Your task to perform on an android device: delete browsing data in the chrome app Image 0: 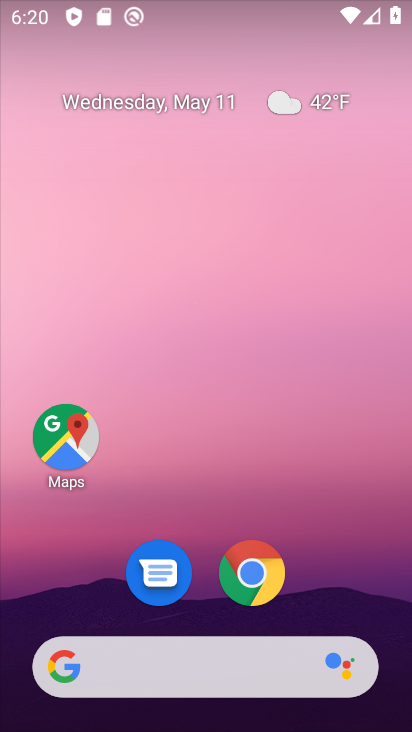
Step 0: click (250, 586)
Your task to perform on an android device: delete browsing data in the chrome app Image 1: 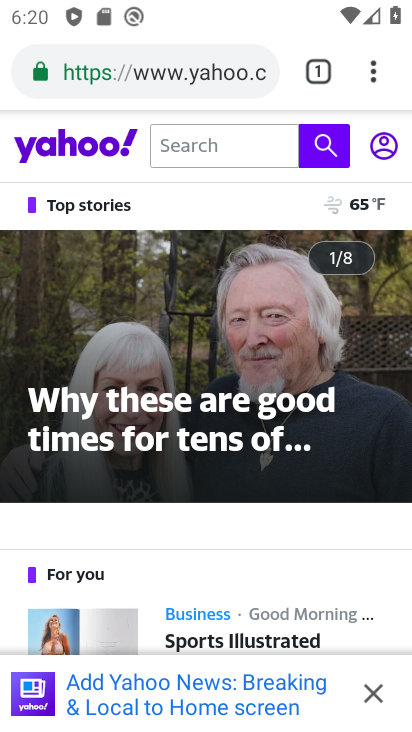
Step 1: click (362, 72)
Your task to perform on an android device: delete browsing data in the chrome app Image 2: 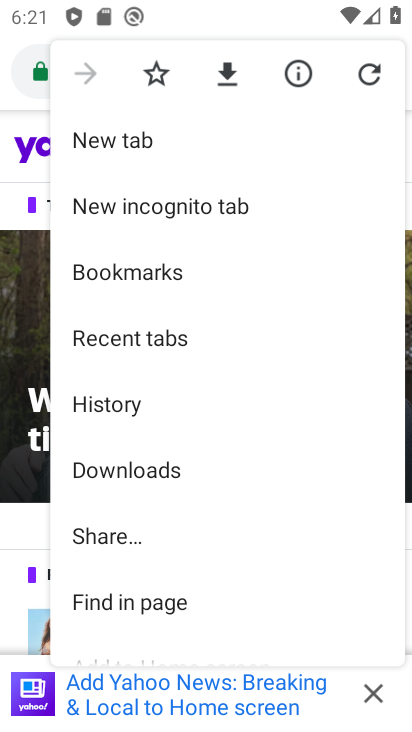
Step 2: click (110, 401)
Your task to perform on an android device: delete browsing data in the chrome app Image 3: 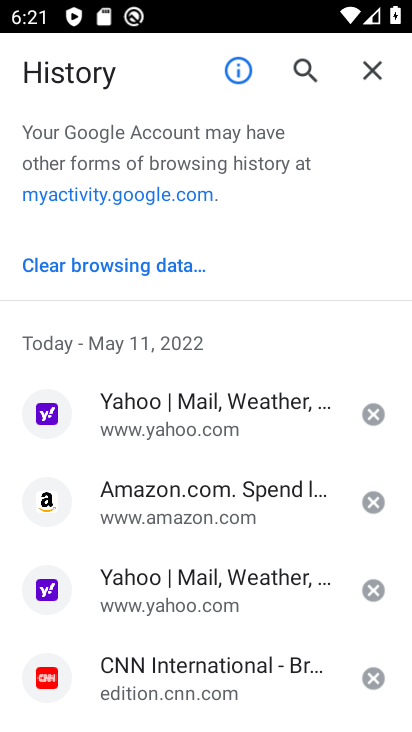
Step 3: click (112, 268)
Your task to perform on an android device: delete browsing data in the chrome app Image 4: 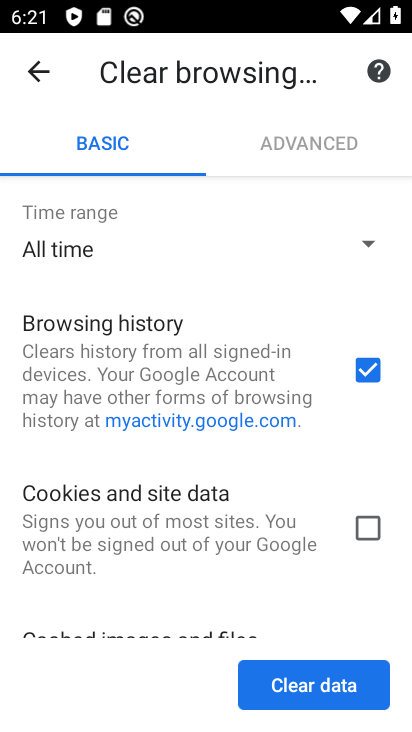
Step 4: click (326, 144)
Your task to perform on an android device: delete browsing data in the chrome app Image 5: 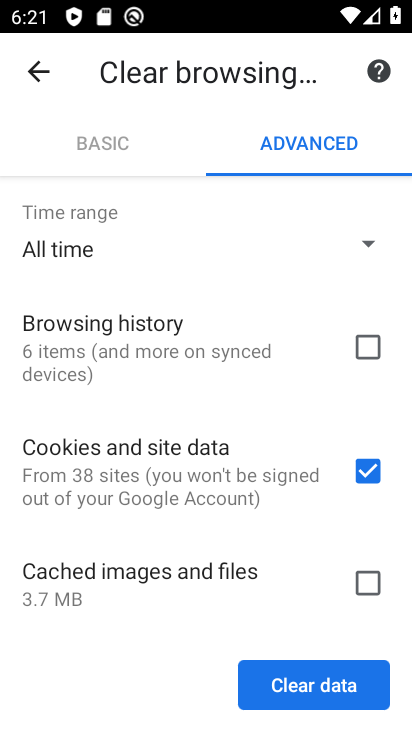
Step 5: click (372, 340)
Your task to perform on an android device: delete browsing data in the chrome app Image 6: 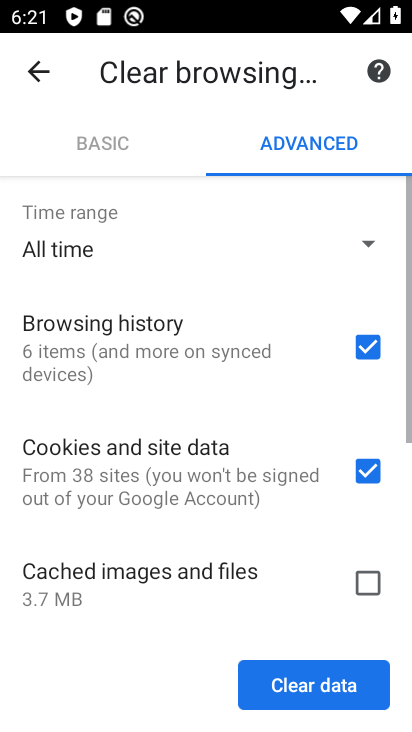
Step 6: click (368, 591)
Your task to perform on an android device: delete browsing data in the chrome app Image 7: 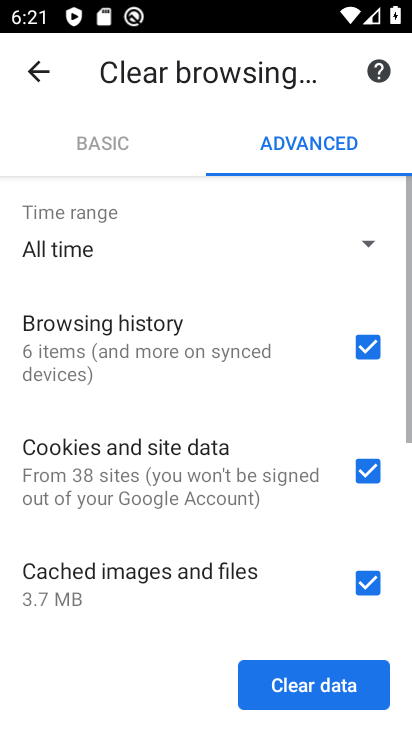
Step 7: drag from (275, 564) to (284, 291)
Your task to perform on an android device: delete browsing data in the chrome app Image 8: 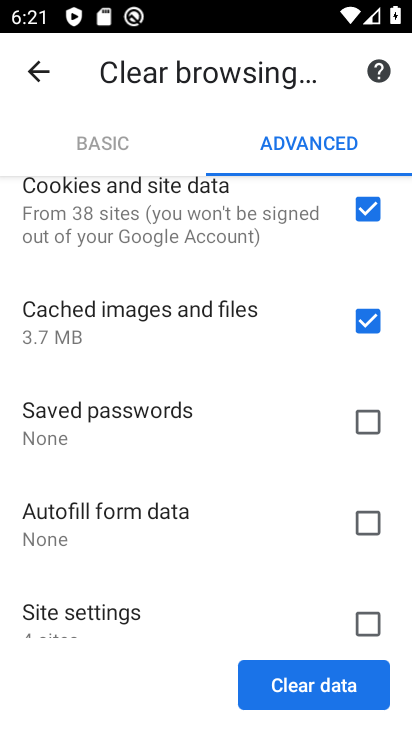
Step 8: click (373, 424)
Your task to perform on an android device: delete browsing data in the chrome app Image 9: 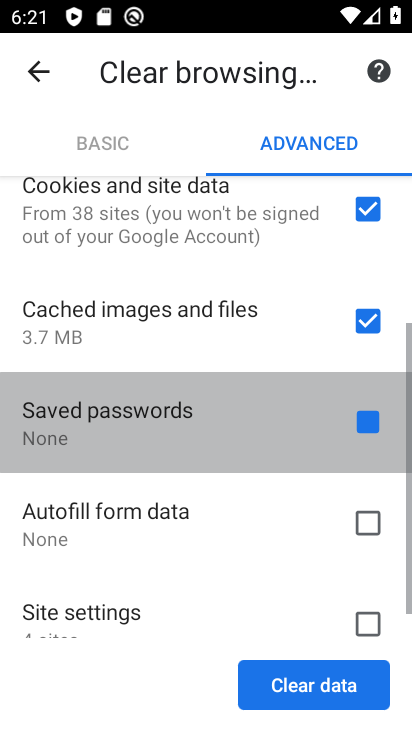
Step 9: click (369, 525)
Your task to perform on an android device: delete browsing data in the chrome app Image 10: 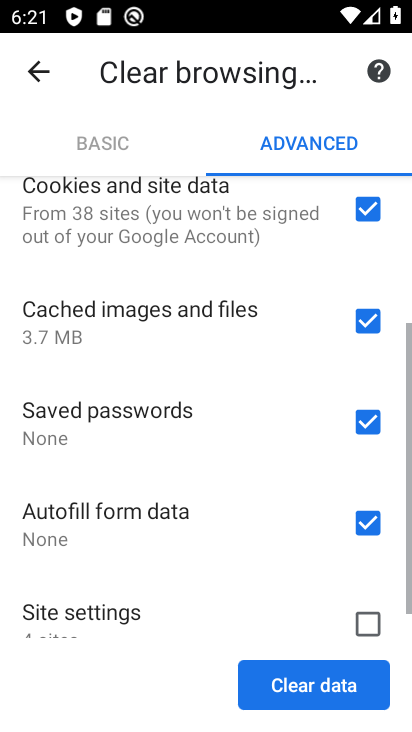
Step 10: click (362, 636)
Your task to perform on an android device: delete browsing data in the chrome app Image 11: 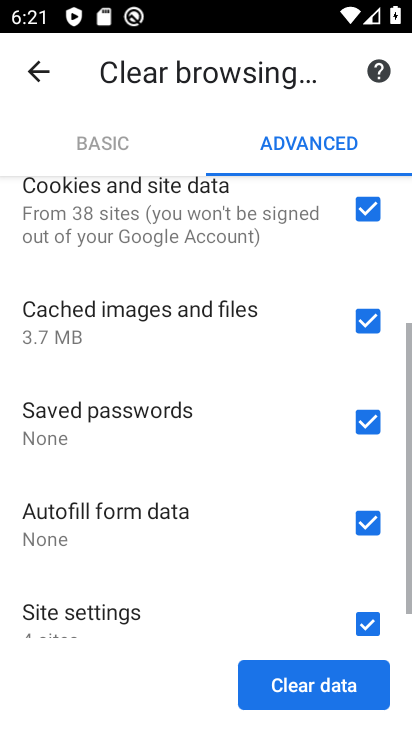
Step 11: drag from (267, 589) to (245, 287)
Your task to perform on an android device: delete browsing data in the chrome app Image 12: 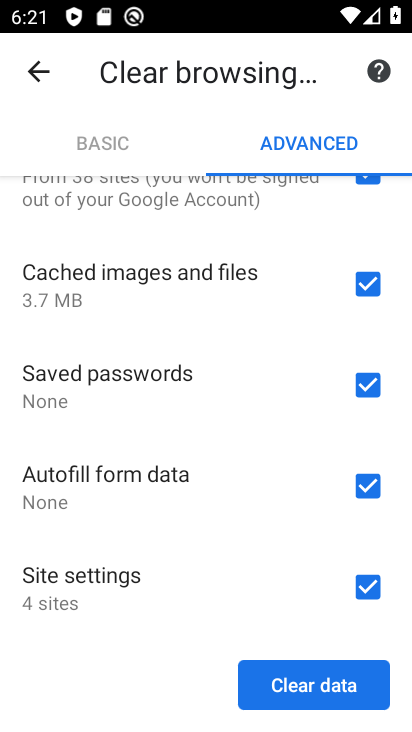
Step 12: click (338, 681)
Your task to perform on an android device: delete browsing data in the chrome app Image 13: 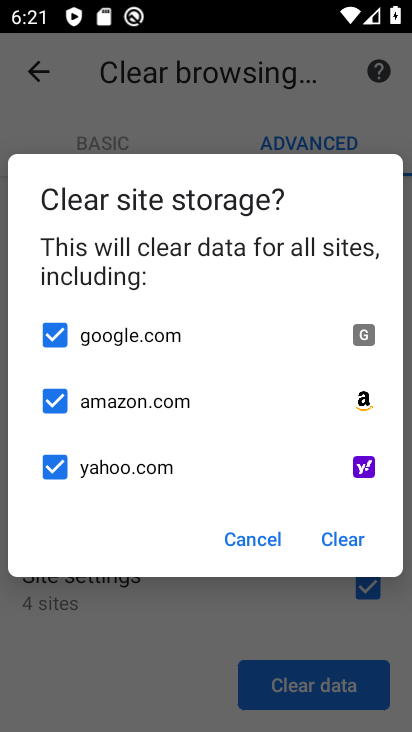
Step 13: click (338, 550)
Your task to perform on an android device: delete browsing data in the chrome app Image 14: 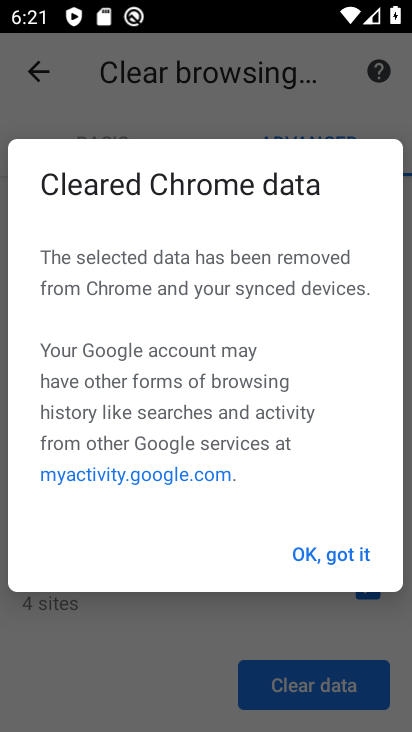
Step 14: click (330, 558)
Your task to perform on an android device: delete browsing data in the chrome app Image 15: 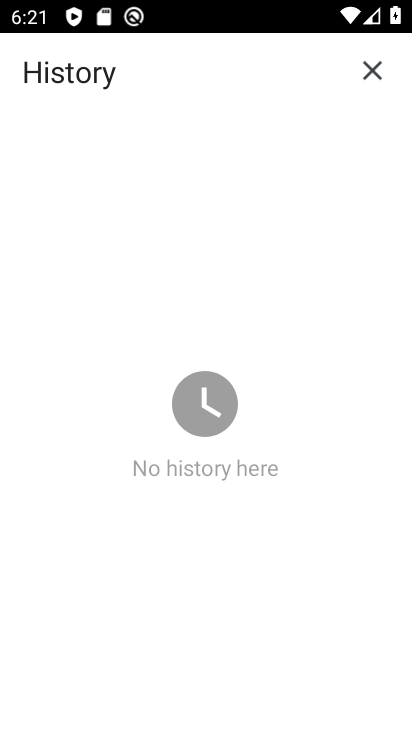
Step 15: task complete